Your task to perform on an android device: Open calendar and show me the first week of next month Image 0: 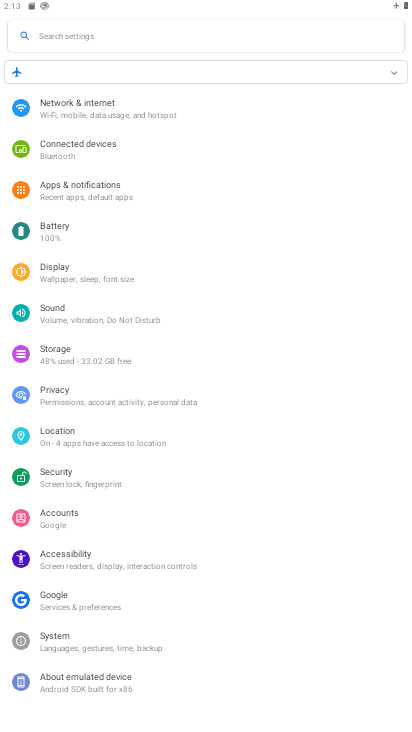
Step 0: press home button
Your task to perform on an android device: Open calendar and show me the first week of next month Image 1: 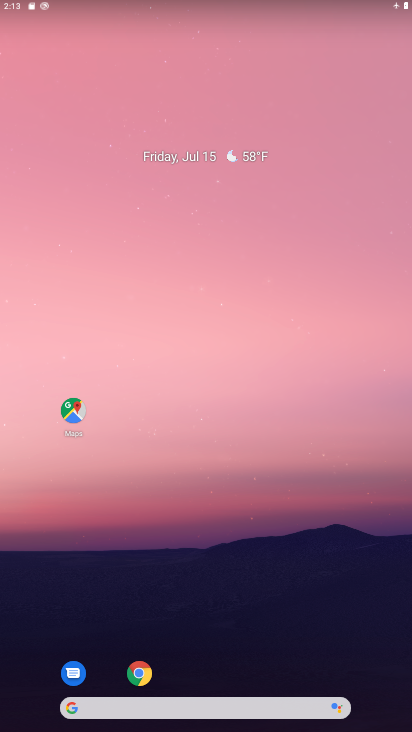
Step 1: drag from (368, 728) to (373, 157)
Your task to perform on an android device: Open calendar and show me the first week of next month Image 2: 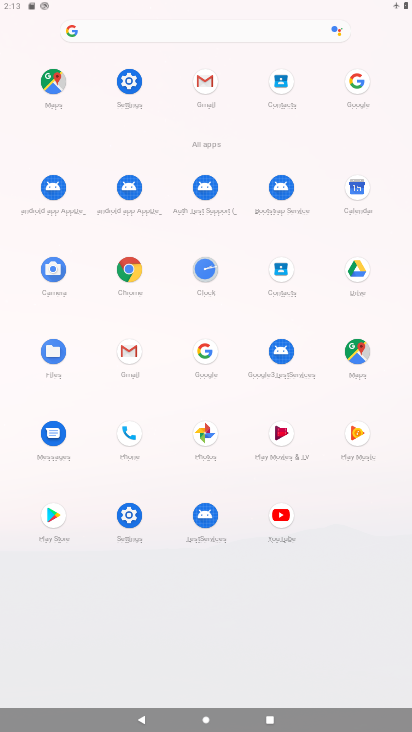
Step 2: click (357, 191)
Your task to perform on an android device: Open calendar and show me the first week of next month Image 3: 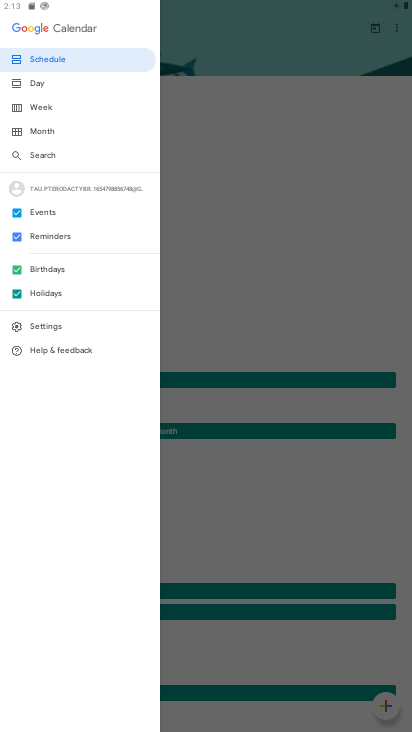
Step 3: click (335, 214)
Your task to perform on an android device: Open calendar and show me the first week of next month Image 4: 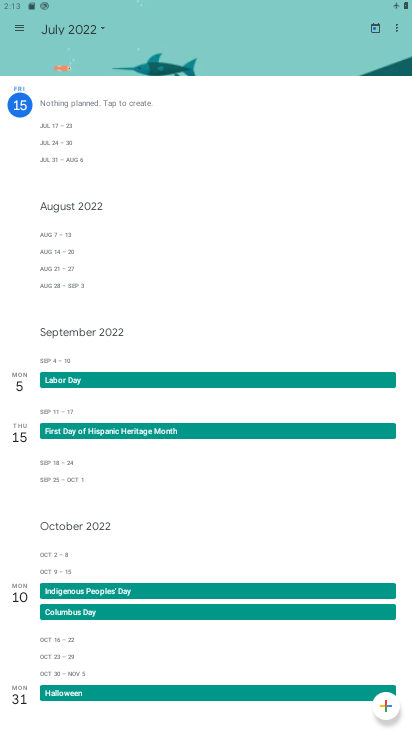
Step 4: click (99, 29)
Your task to perform on an android device: Open calendar and show me the first week of next month Image 5: 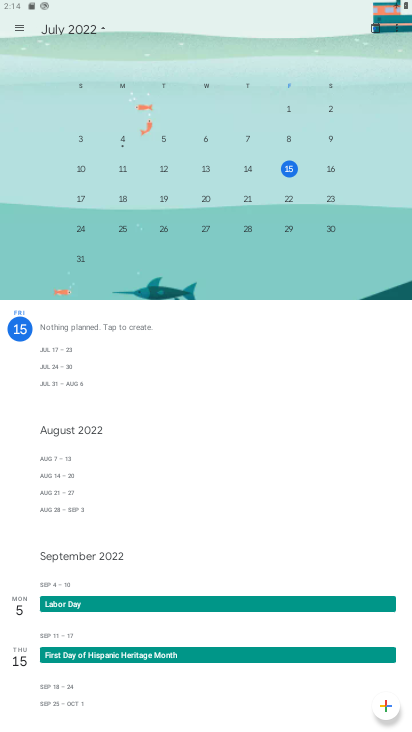
Step 5: drag from (327, 163) to (82, 128)
Your task to perform on an android device: Open calendar and show me the first week of next month Image 6: 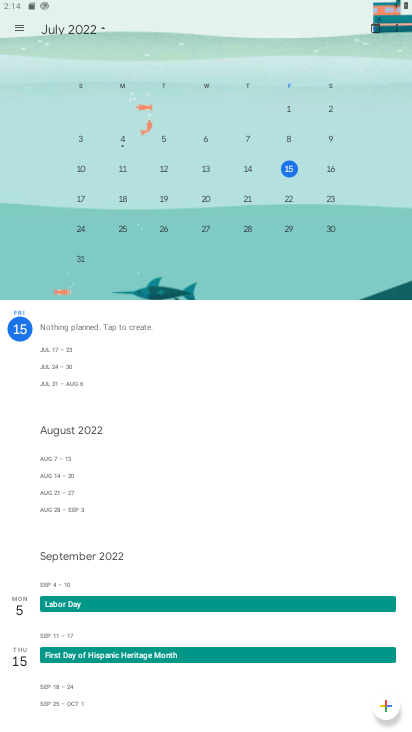
Step 6: drag from (368, 114) to (63, 116)
Your task to perform on an android device: Open calendar and show me the first week of next month Image 7: 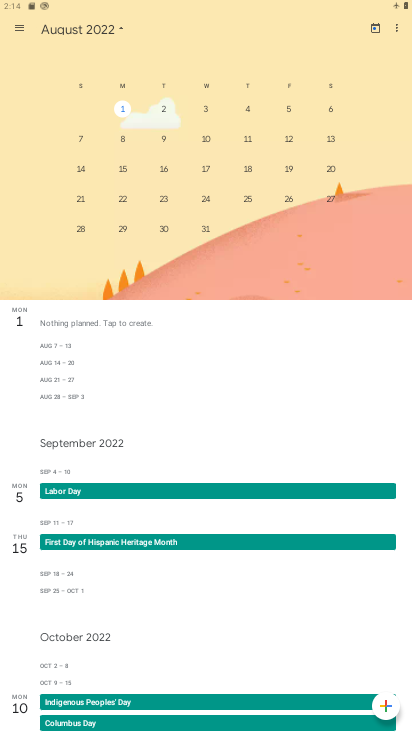
Step 7: click (204, 106)
Your task to perform on an android device: Open calendar and show me the first week of next month Image 8: 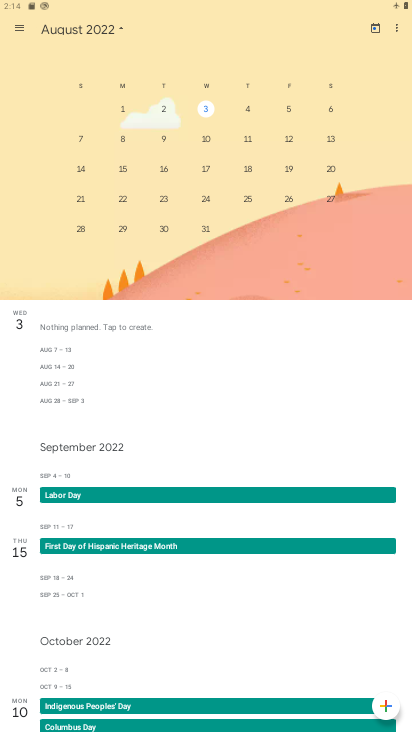
Step 8: click (16, 20)
Your task to perform on an android device: Open calendar and show me the first week of next month Image 9: 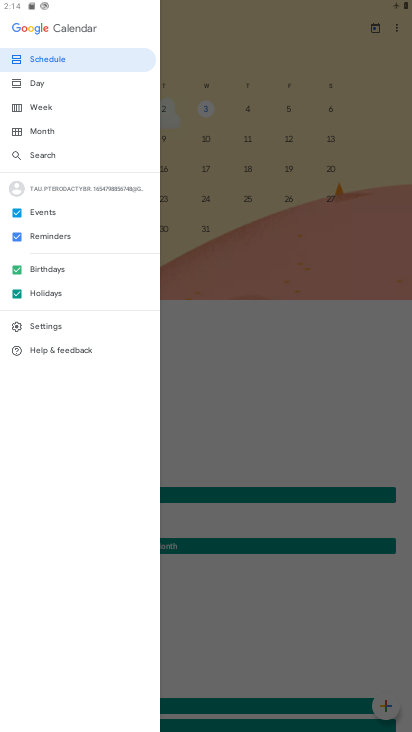
Step 9: click (34, 106)
Your task to perform on an android device: Open calendar and show me the first week of next month Image 10: 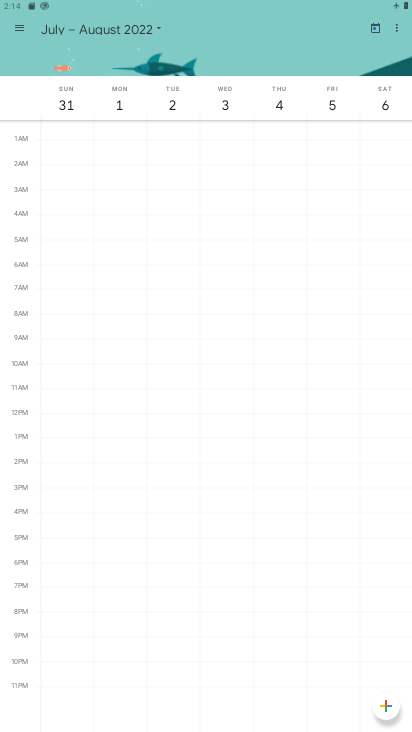
Step 10: task complete